Your task to perform on an android device: turn off notifications settings in the gmail app Image 0: 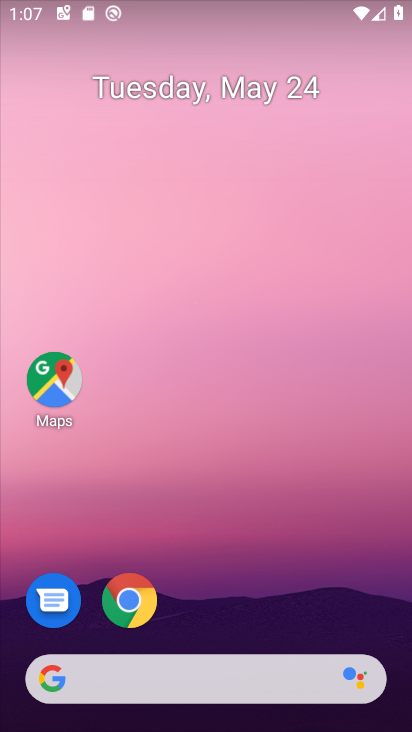
Step 0: drag from (199, 617) to (202, 206)
Your task to perform on an android device: turn off notifications settings in the gmail app Image 1: 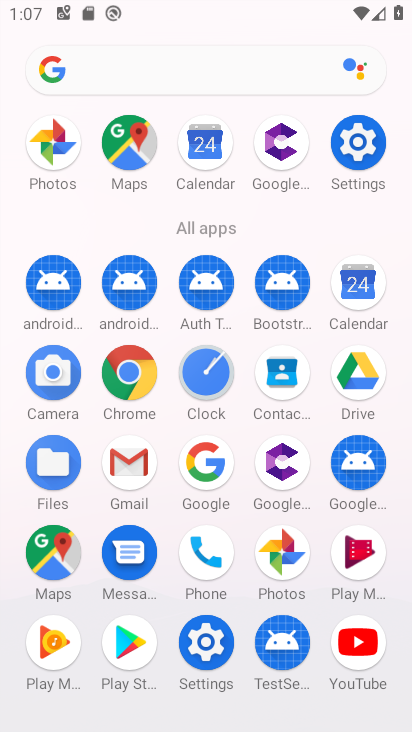
Step 1: click (134, 469)
Your task to perform on an android device: turn off notifications settings in the gmail app Image 2: 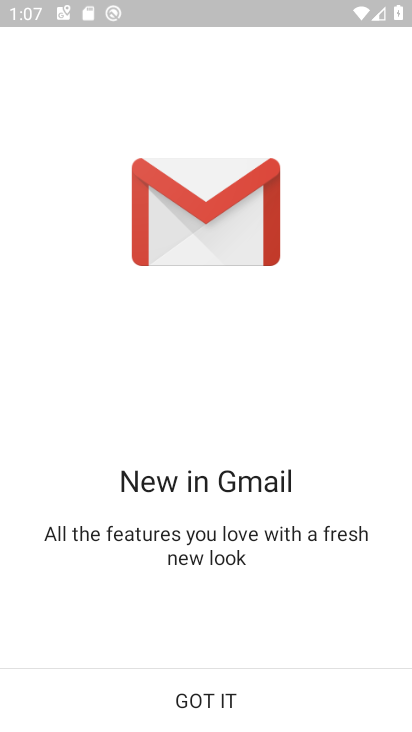
Step 2: click (209, 673)
Your task to perform on an android device: turn off notifications settings in the gmail app Image 3: 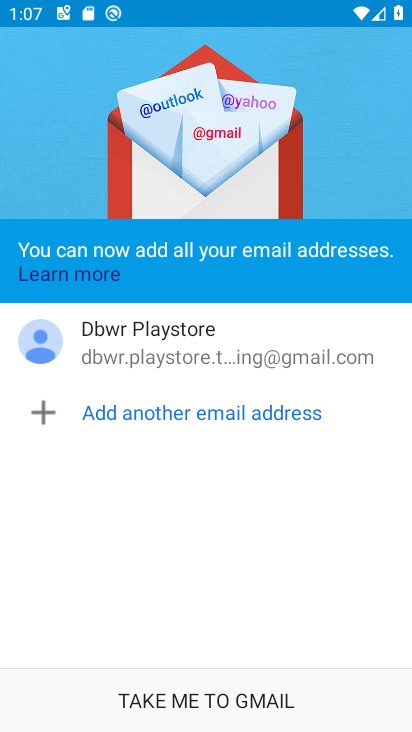
Step 3: click (209, 673)
Your task to perform on an android device: turn off notifications settings in the gmail app Image 4: 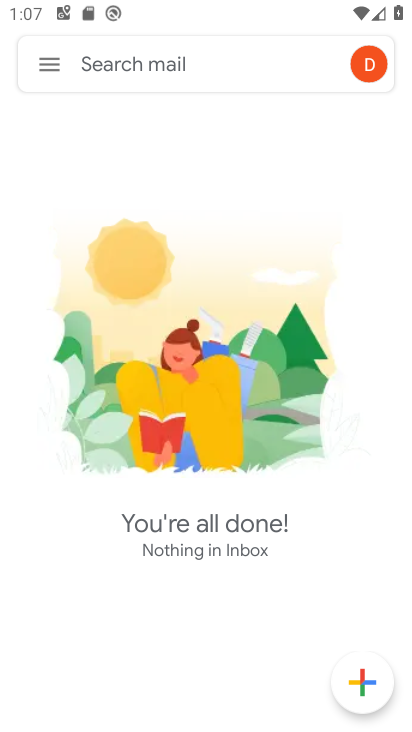
Step 4: click (35, 50)
Your task to perform on an android device: turn off notifications settings in the gmail app Image 5: 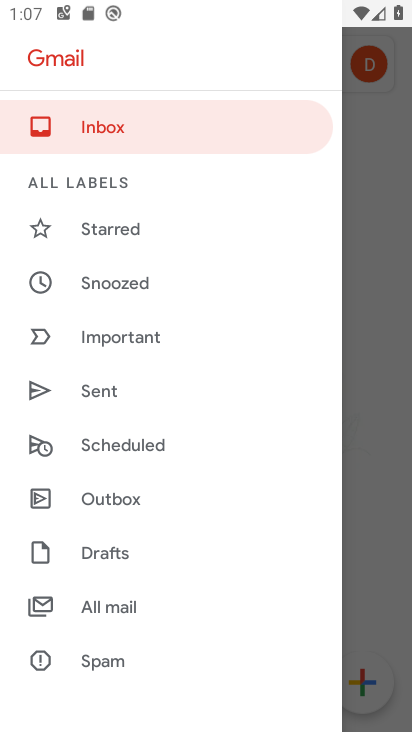
Step 5: drag from (167, 616) to (179, 392)
Your task to perform on an android device: turn off notifications settings in the gmail app Image 6: 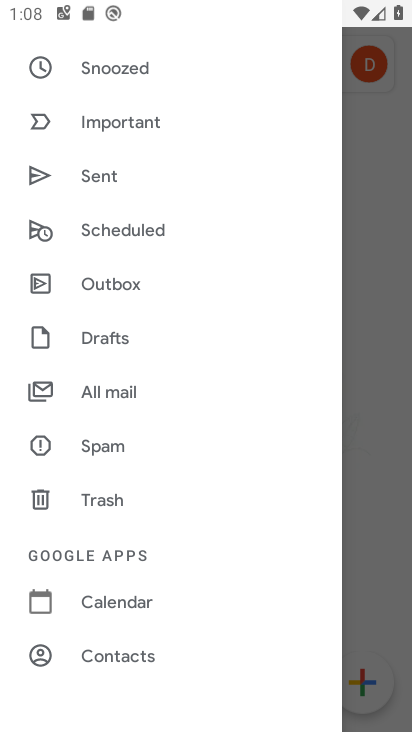
Step 6: drag from (144, 617) to (180, 248)
Your task to perform on an android device: turn off notifications settings in the gmail app Image 7: 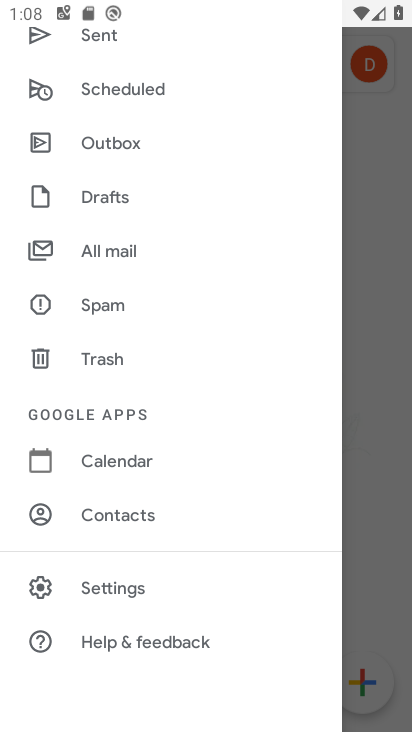
Step 7: drag from (140, 616) to (160, 421)
Your task to perform on an android device: turn off notifications settings in the gmail app Image 8: 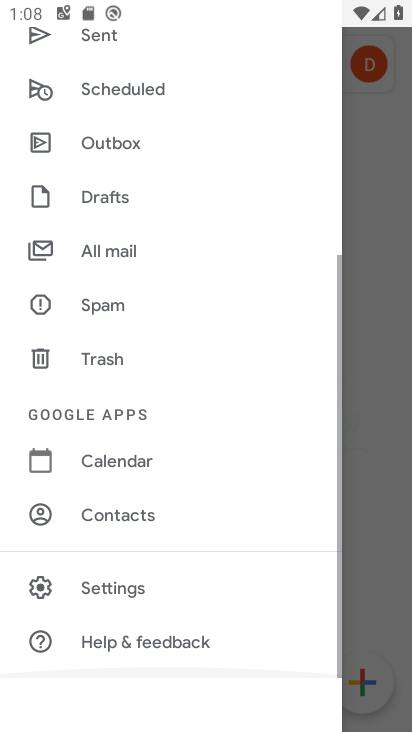
Step 8: click (116, 590)
Your task to perform on an android device: turn off notifications settings in the gmail app Image 9: 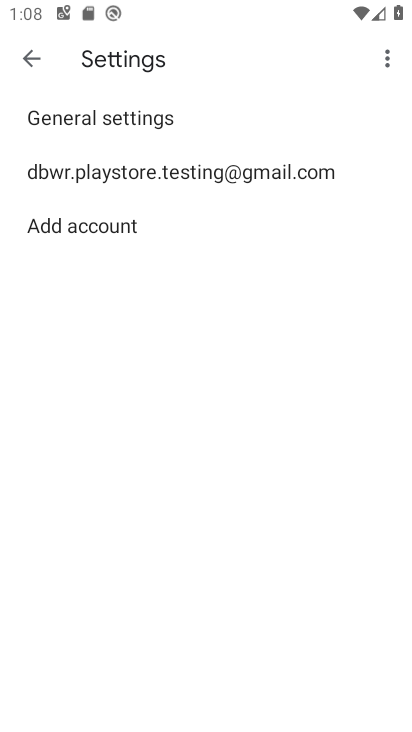
Step 9: click (160, 183)
Your task to perform on an android device: turn off notifications settings in the gmail app Image 10: 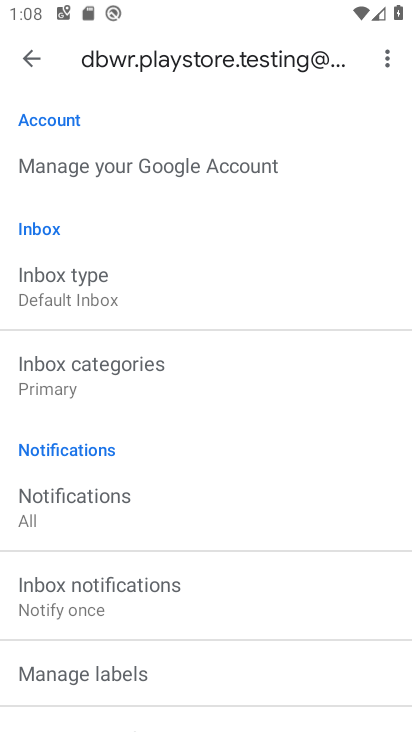
Step 10: drag from (202, 672) to (220, 390)
Your task to perform on an android device: turn off notifications settings in the gmail app Image 11: 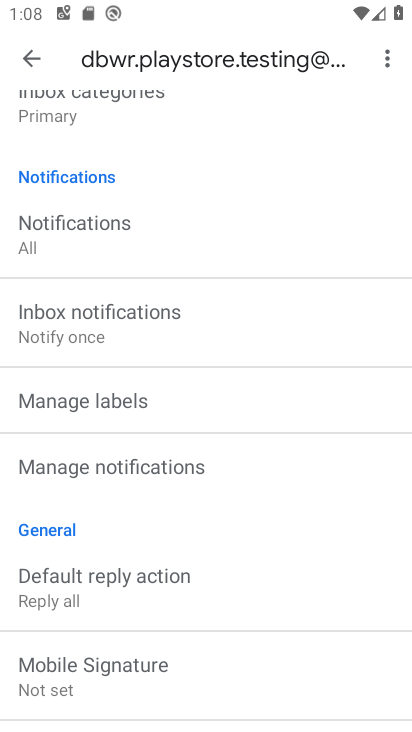
Step 11: click (193, 455)
Your task to perform on an android device: turn off notifications settings in the gmail app Image 12: 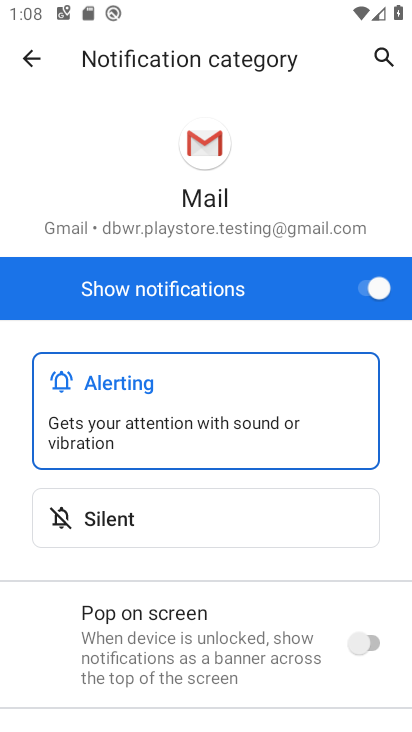
Step 12: click (352, 283)
Your task to perform on an android device: turn off notifications settings in the gmail app Image 13: 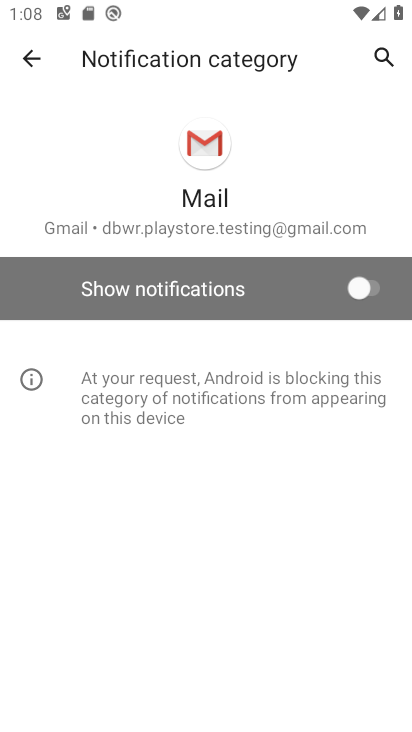
Step 13: task complete